Your task to perform on an android device: check google app version Image 0: 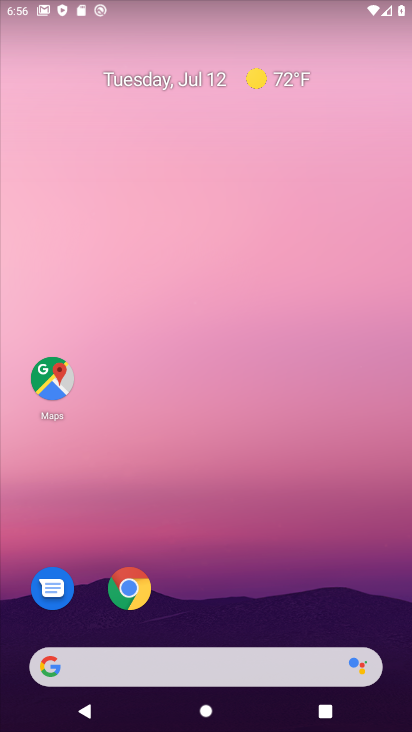
Step 0: drag from (231, 578) to (280, 2)
Your task to perform on an android device: check google app version Image 1: 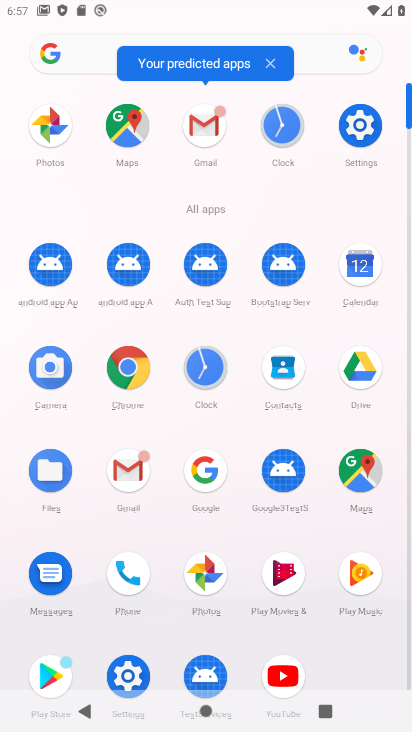
Step 1: click (204, 481)
Your task to perform on an android device: check google app version Image 2: 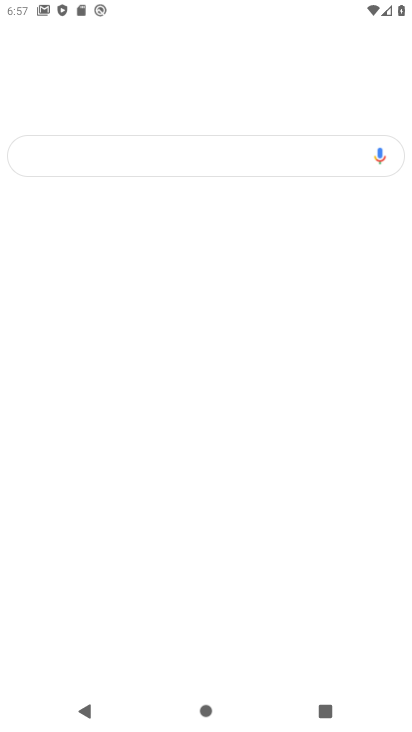
Step 2: click (204, 478)
Your task to perform on an android device: check google app version Image 3: 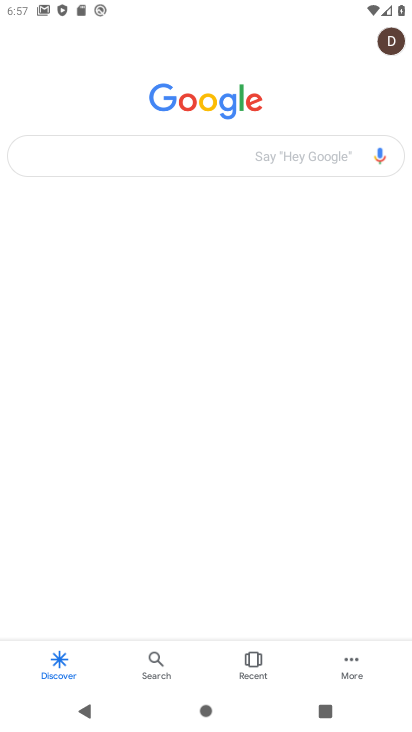
Step 3: click (347, 670)
Your task to perform on an android device: check google app version Image 4: 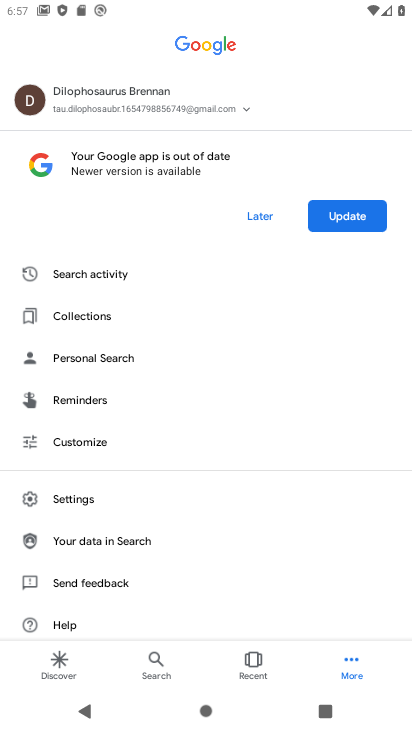
Step 4: click (73, 492)
Your task to perform on an android device: check google app version Image 5: 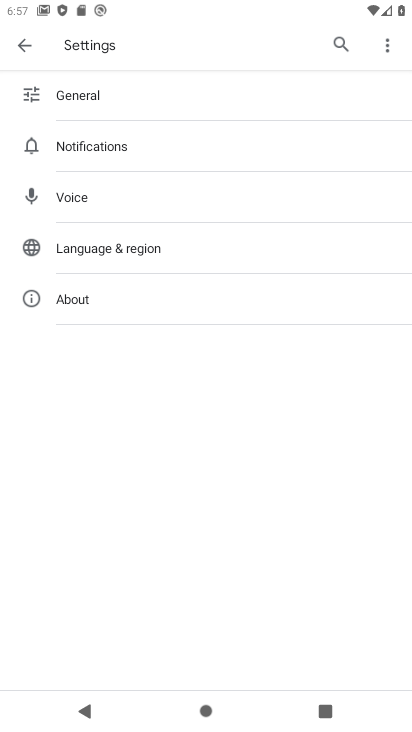
Step 5: click (122, 304)
Your task to perform on an android device: check google app version Image 6: 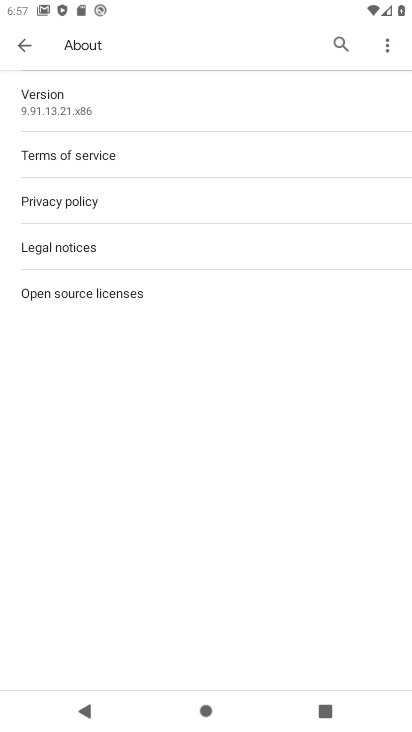
Step 6: click (104, 104)
Your task to perform on an android device: check google app version Image 7: 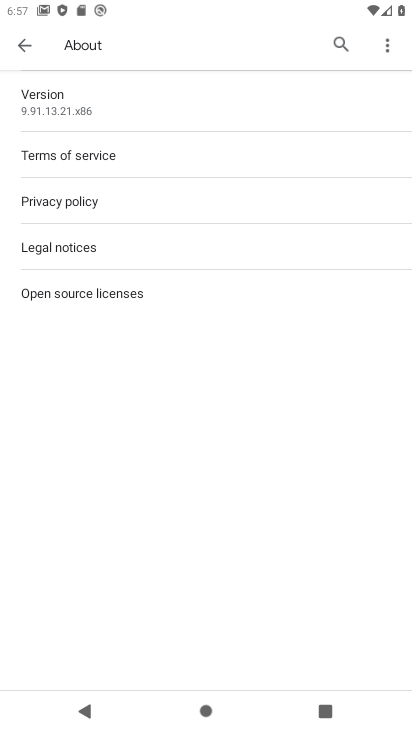
Step 7: task complete